Your task to perform on an android device: install app "Adobe Express: Graphic Design" Image 0: 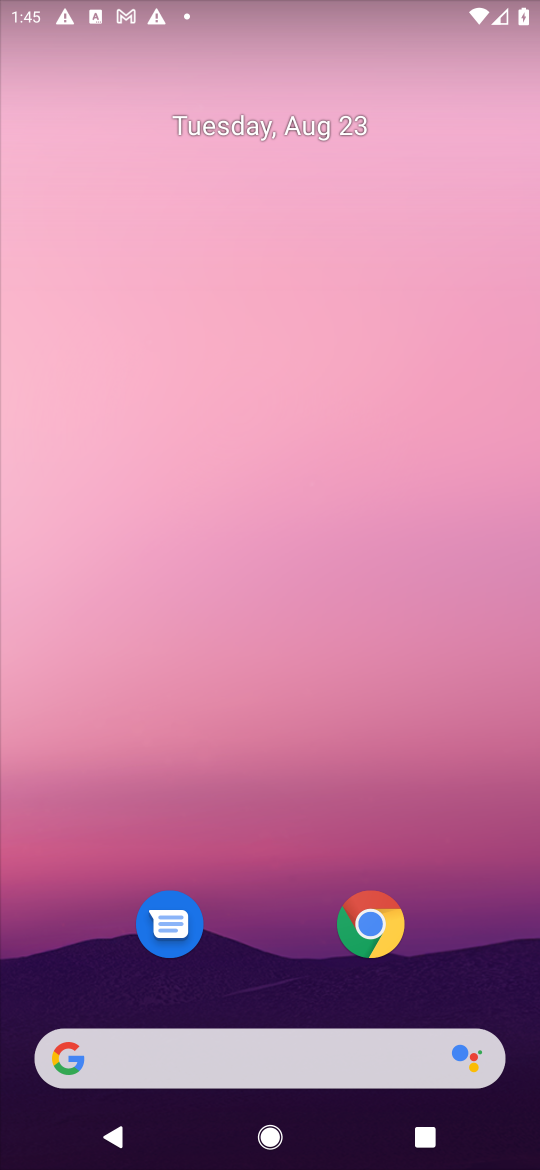
Step 0: press home button
Your task to perform on an android device: install app "Adobe Express: Graphic Design" Image 1: 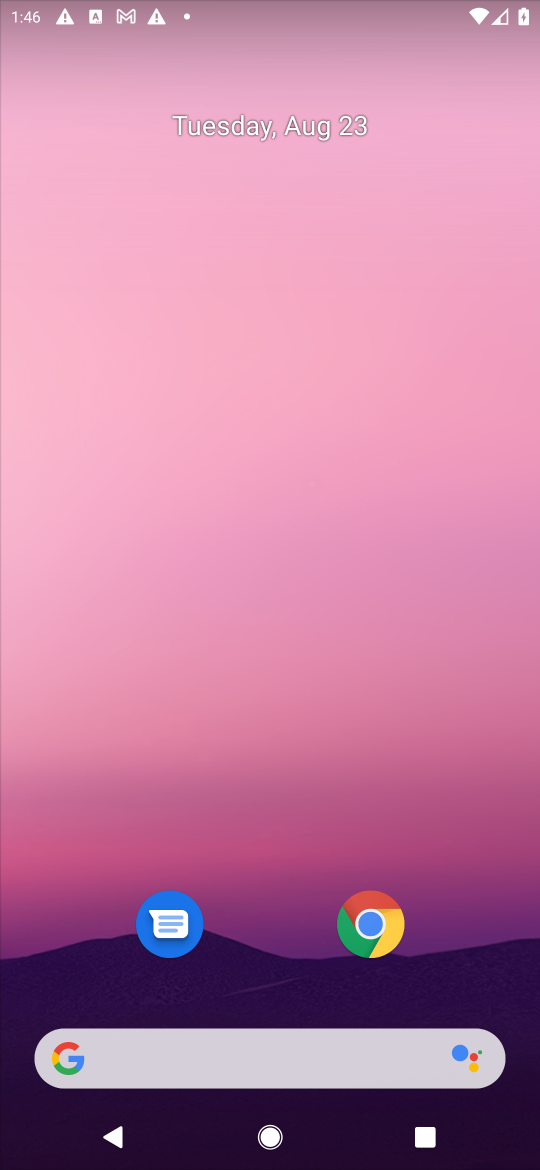
Step 1: drag from (453, 972) to (462, 144)
Your task to perform on an android device: install app "Adobe Express: Graphic Design" Image 2: 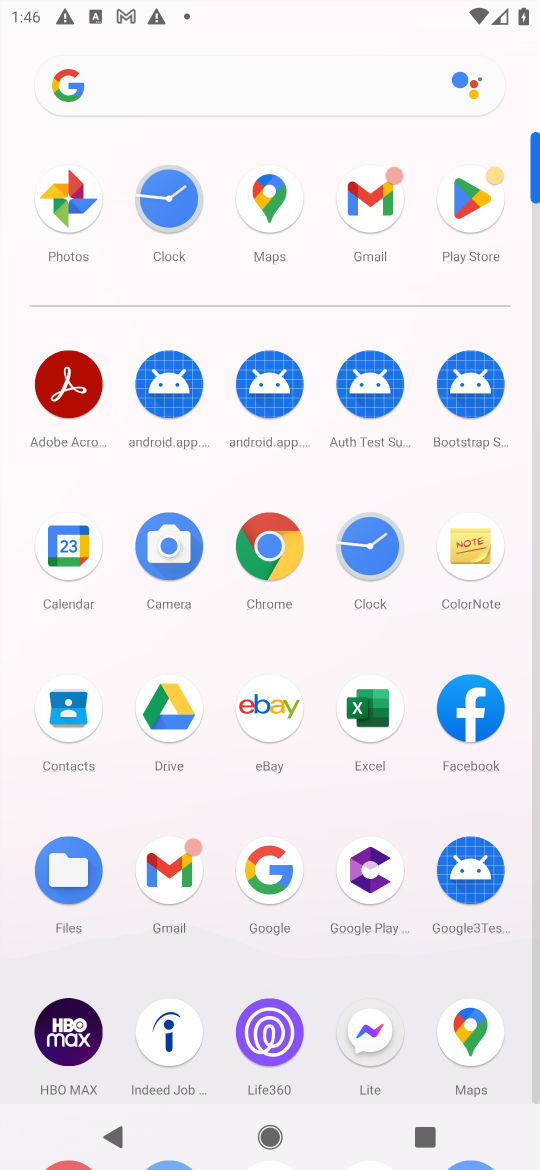
Step 2: click (468, 209)
Your task to perform on an android device: install app "Adobe Express: Graphic Design" Image 3: 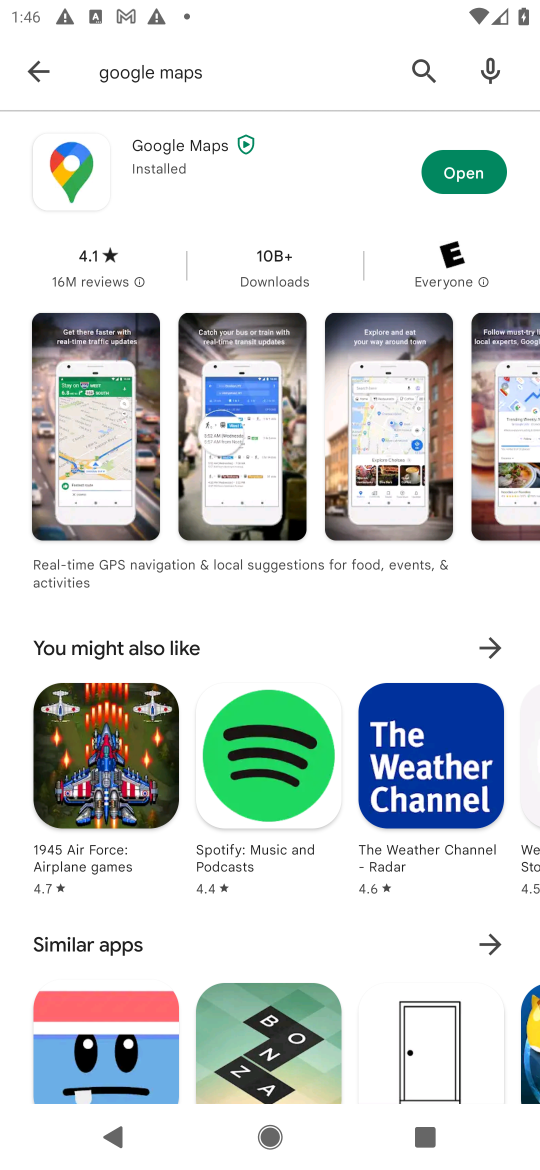
Step 3: press back button
Your task to perform on an android device: install app "Adobe Express: Graphic Design" Image 4: 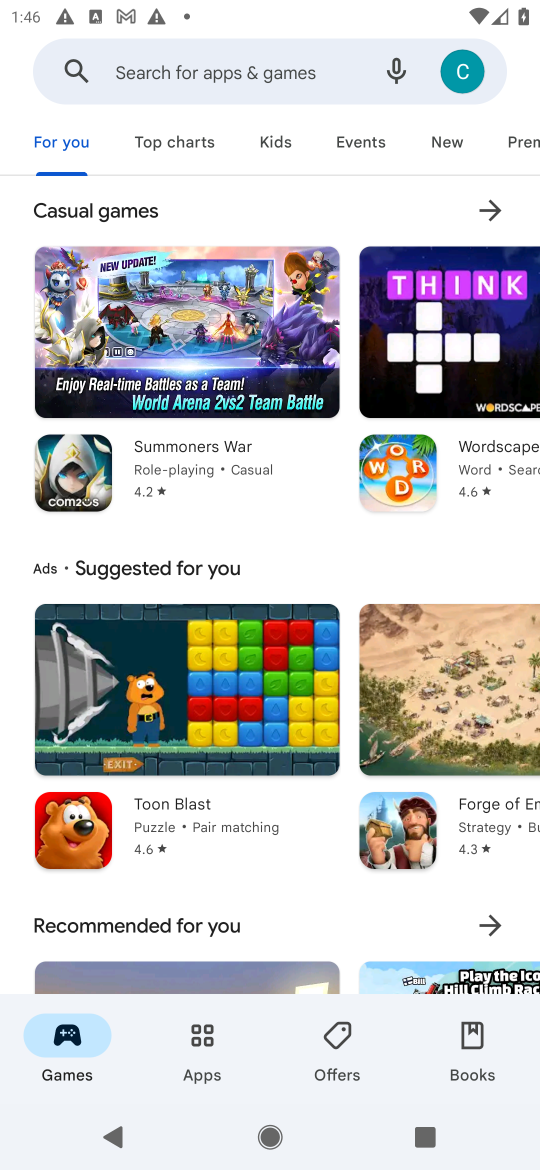
Step 4: click (250, 69)
Your task to perform on an android device: install app "Adobe Express: Graphic Design" Image 5: 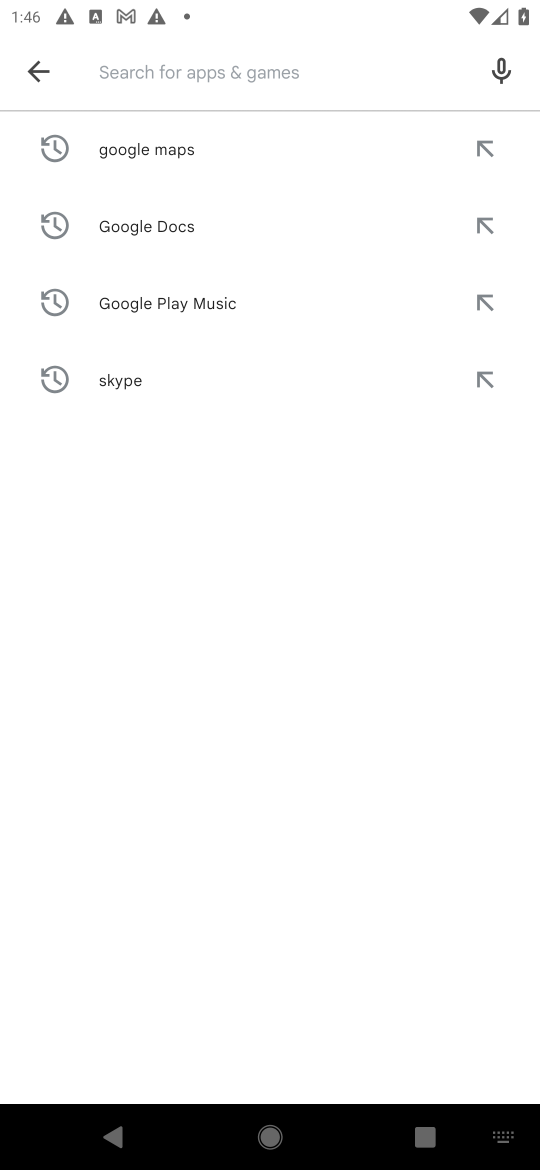
Step 5: type "Adobe Express: Graphic Design"
Your task to perform on an android device: install app "Adobe Express: Graphic Design" Image 6: 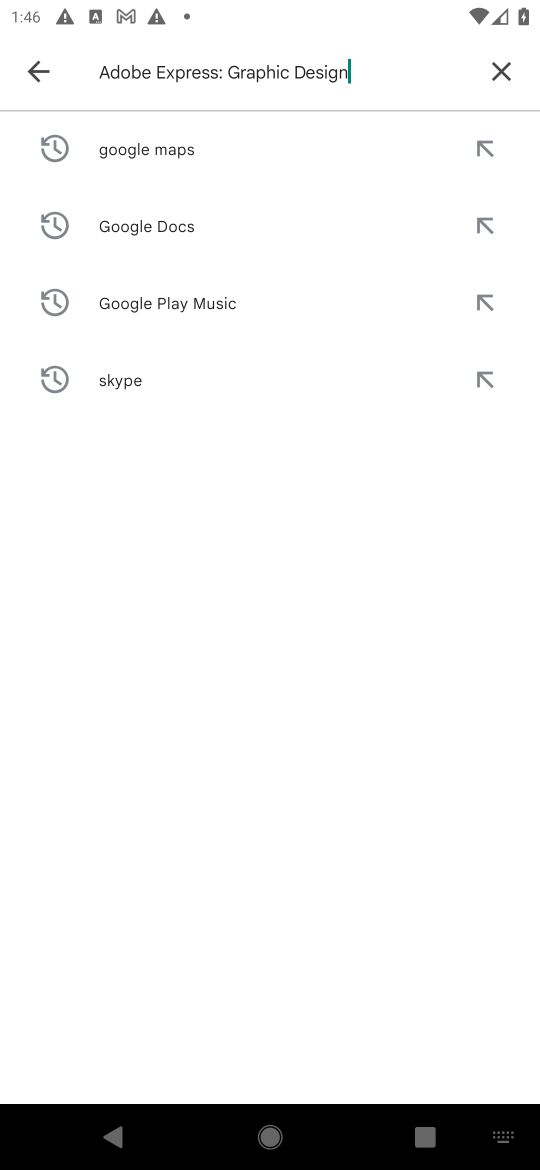
Step 6: press enter
Your task to perform on an android device: install app "Adobe Express: Graphic Design" Image 7: 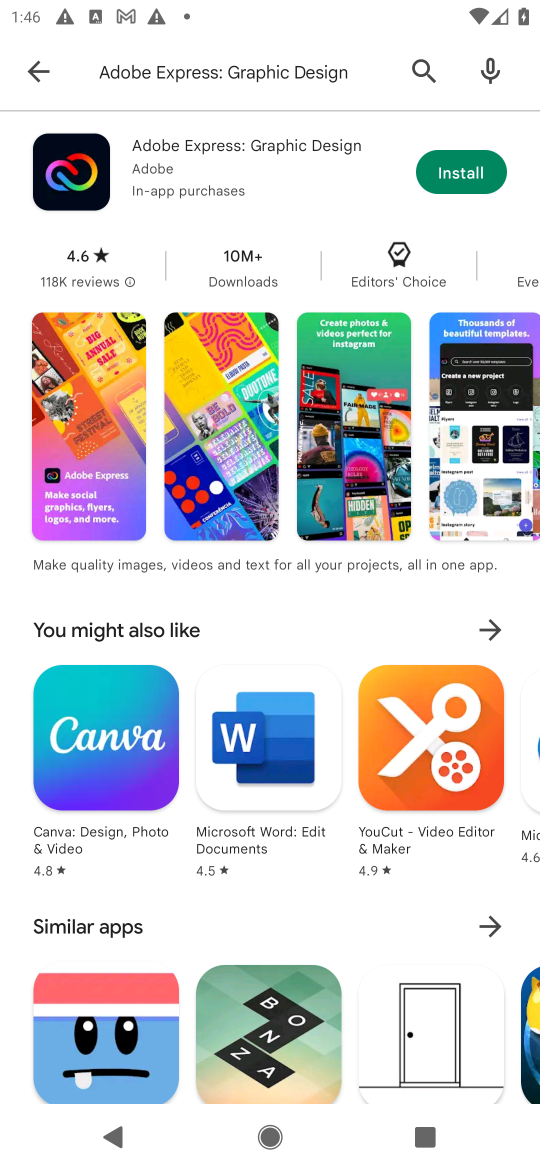
Step 7: click (475, 180)
Your task to perform on an android device: install app "Adobe Express: Graphic Design" Image 8: 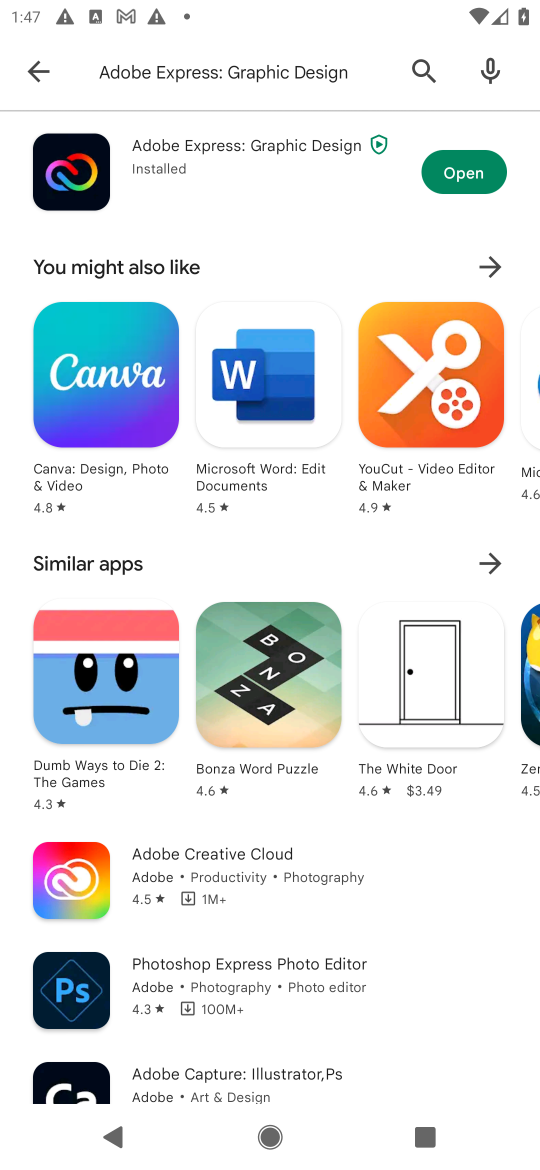
Step 8: task complete